Your task to perform on an android device: What is the news today? Image 0: 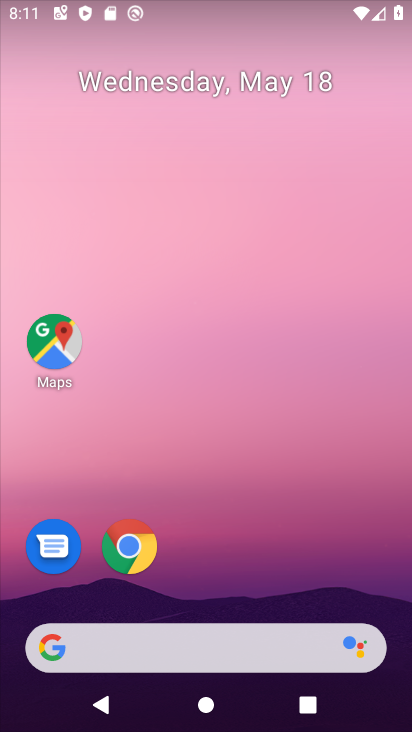
Step 0: drag from (270, 641) to (278, 177)
Your task to perform on an android device: What is the news today? Image 1: 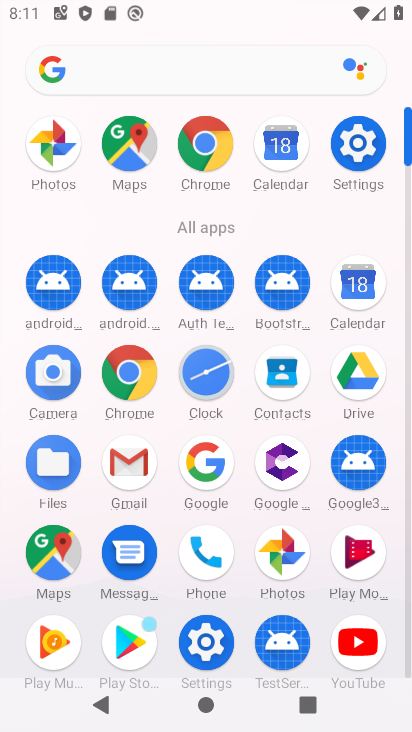
Step 1: click (111, 72)
Your task to perform on an android device: What is the news today? Image 2: 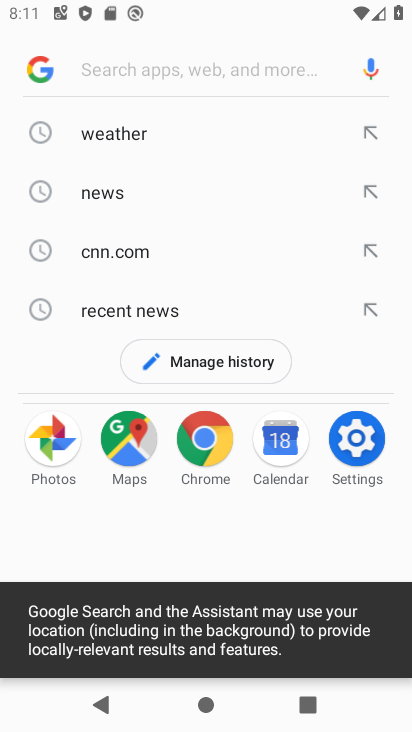
Step 2: click (140, 203)
Your task to perform on an android device: What is the news today? Image 3: 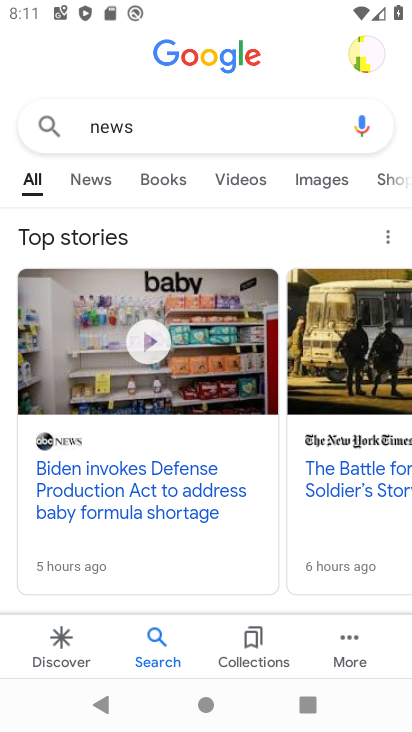
Step 3: task complete